Your task to perform on an android device: toggle wifi Image 0: 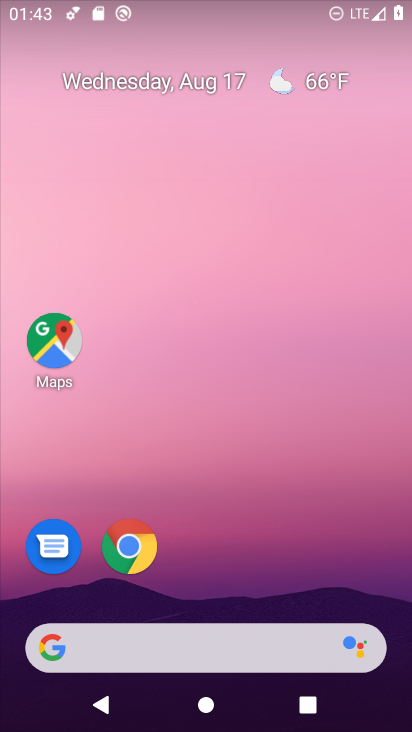
Step 0: drag from (247, 568) to (218, 54)
Your task to perform on an android device: toggle wifi Image 1: 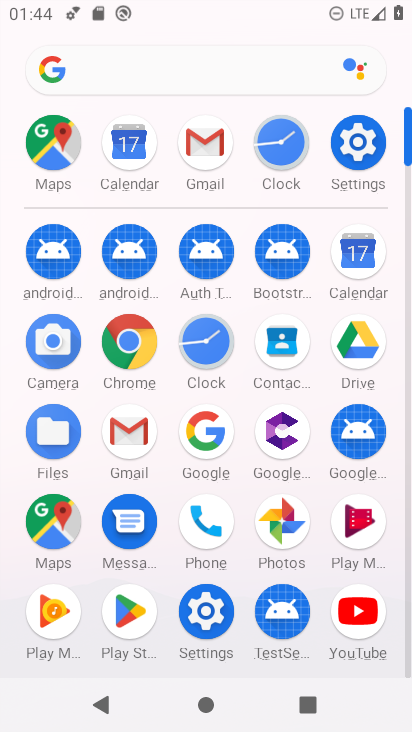
Step 1: click (358, 137)
Your task to perform on an android device: toggle wifi Image 2: 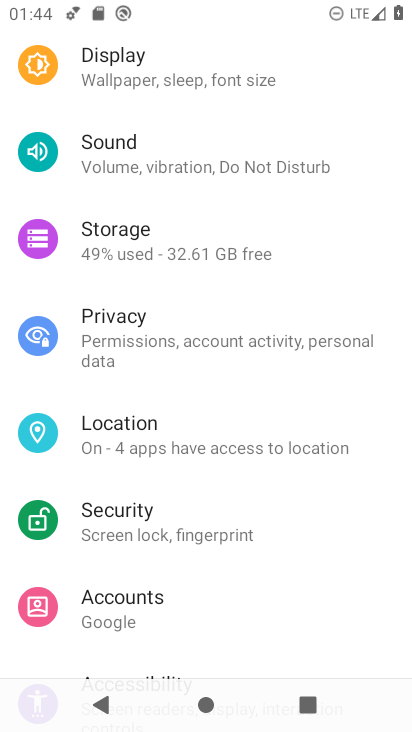
Step 2: drag from (315, 132) to (312, 386)
Your task to perform on an android device: toggle wifi Image 3: 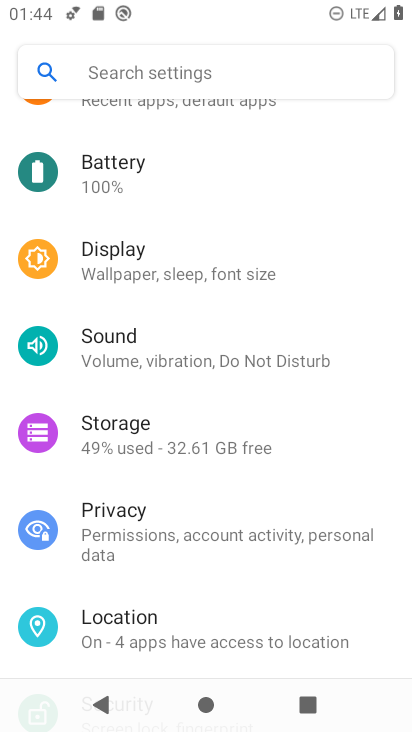
Step 3: drag from (224, 210) to (199, 516)
Your task to perform on an android device: toggle wifi Image 4: 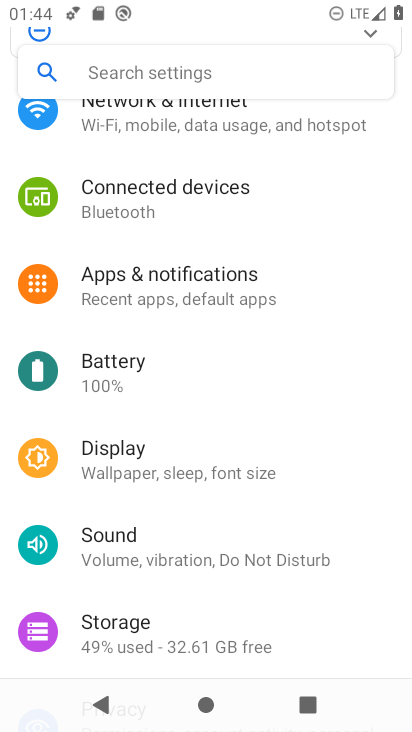
Step 4: drag from (202, 234) to (187, 511)
Your task to perform on an android device: toggle wifi Image 5: 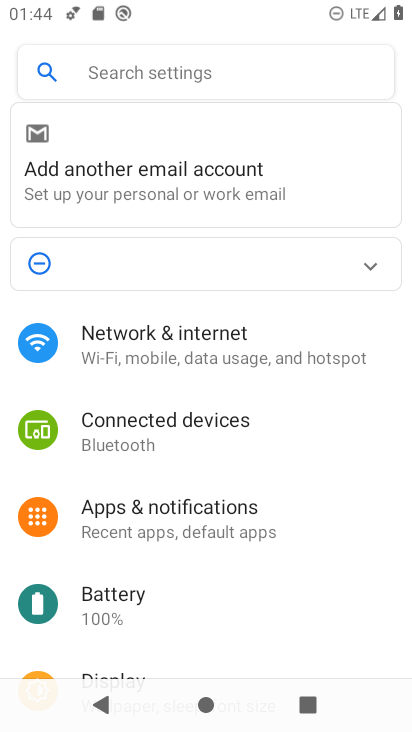
Step 5: click (165, 328)
Your task to perform on an android device: toggle wifi Image 6: 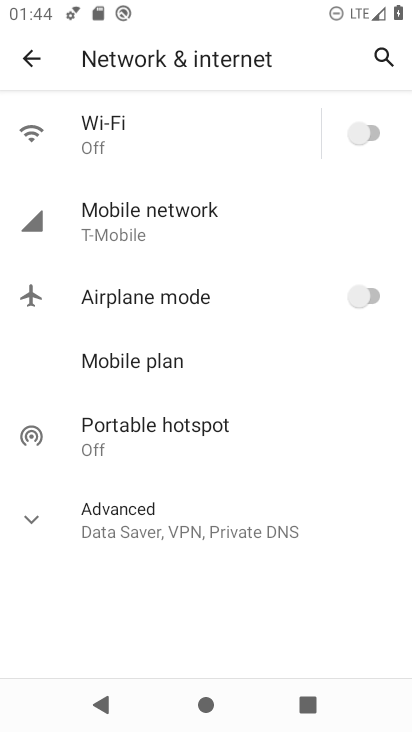
Step 6: click (365, 129)
Your task to perform on an android device: toggle wifi Image 7: 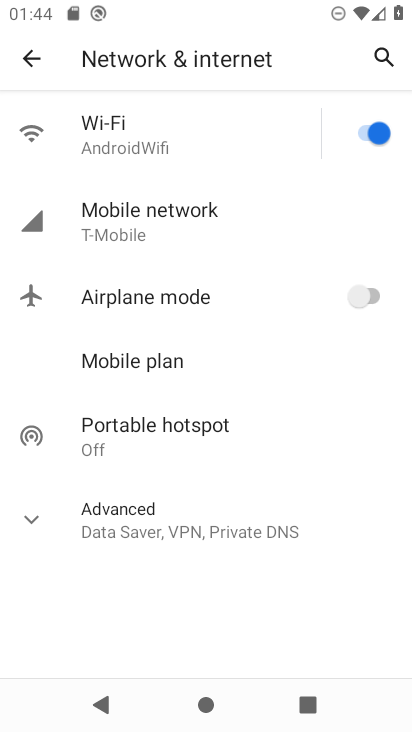
Step 7: task complete